Your task to perform on an android device: Search for seafood restaurants on Google Maps Image 0: 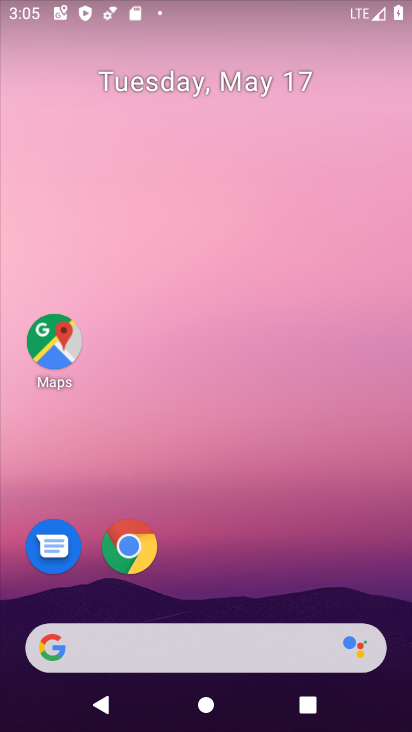
Step 0: press home button
Your task to perform on an android device: Search for seafood restaurants on Google Maps Image 1: 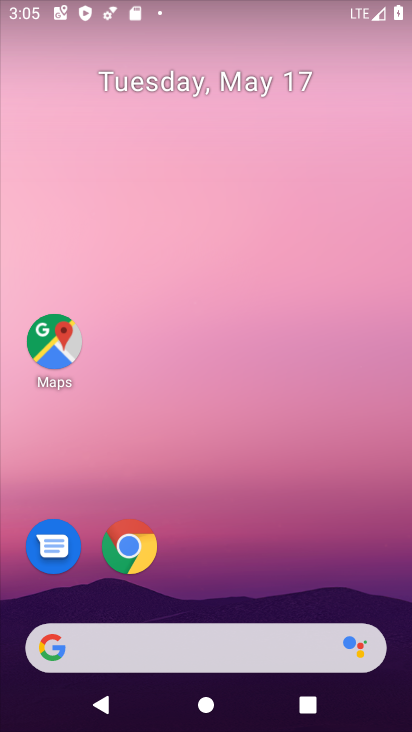
Step 1: click (65, 357)
Your task to perform on an android device: Search for seafood restaurants on Google Maps Image 2: 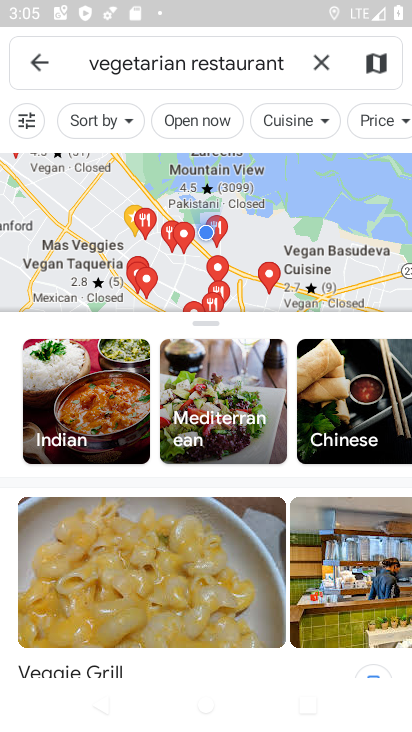
Step 2: click (316, 69)
Your task to perform on an android device: Search for seafood restaurants on Google Maps Image 3: 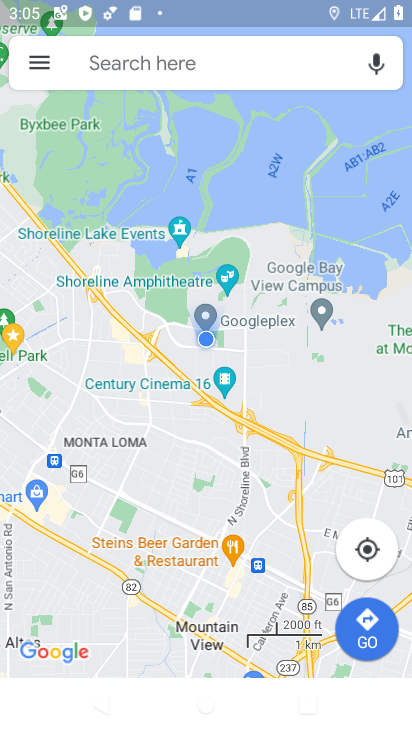
Step 3: click (235, 71)
Your task to perform on an android device: Search for seafood restaurants on Google Maps Image 4: 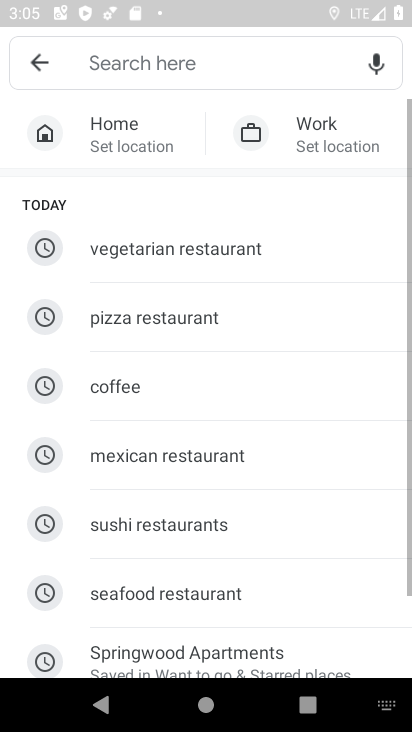
Step 4: click (235, 71)
Your task to perform on an android device: Search for seafood restaurants on Google Maps Image 5: 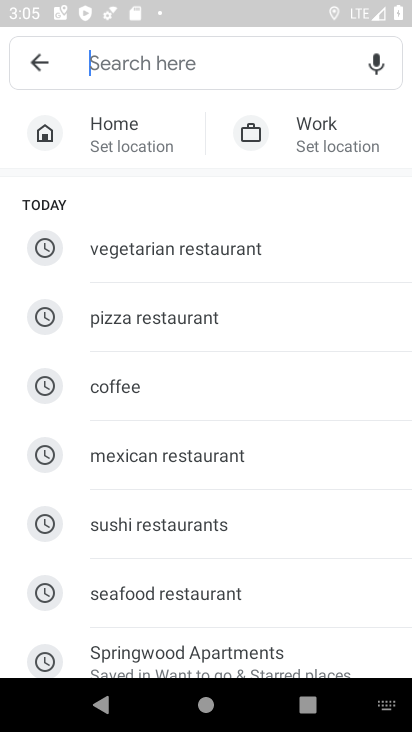
Step 5: type " seafood restaurants"
Your task to perform on an android device: Search for seafood restaurants on Google Maps Image 6: 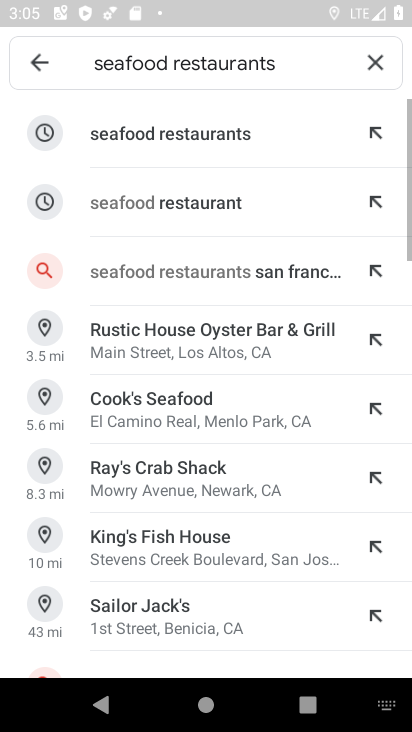
Step 6: click (259, 141)
Your task to perform on an android device: Search for seafood restaurants on Google Maps Image 7: 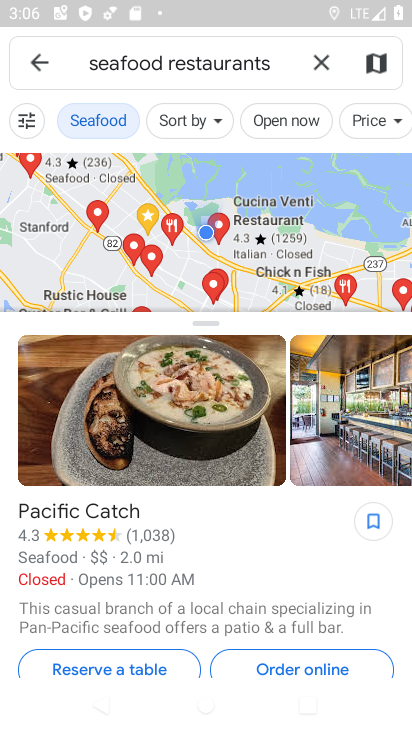
Step 7: task complete